Your task to perform on an android device: turn on priority inbox in the gmail app Image 0: 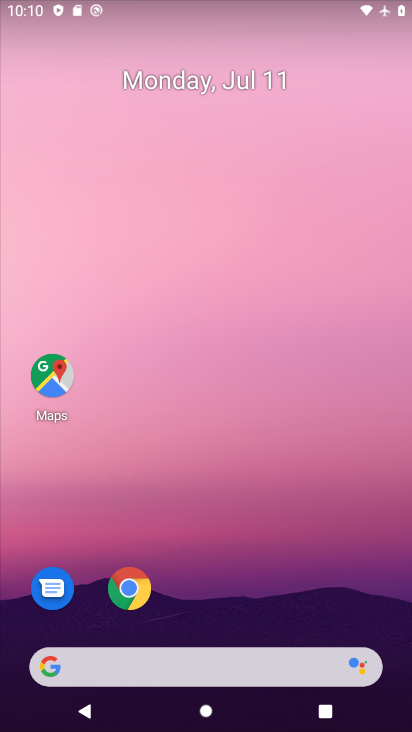
Step 0: drag from (153, 659) to (301, 171)
Your task to perform on an android device: turn on priority inbox in the gmail app Image 1: 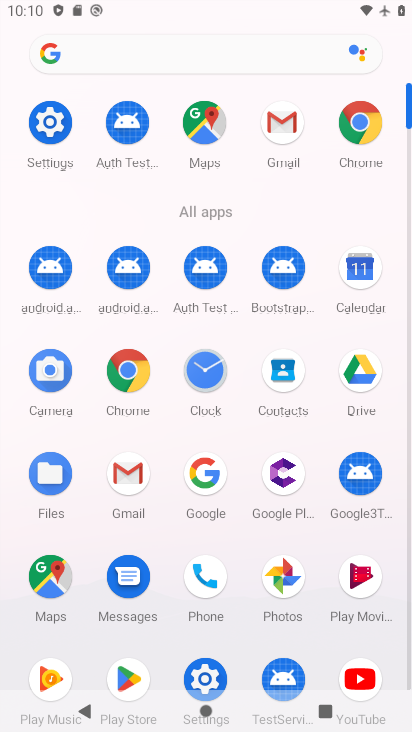
Step 1: click (285, 135)
Your task to perform on an android device: turn on priority inbox in the gmail app Image 2: 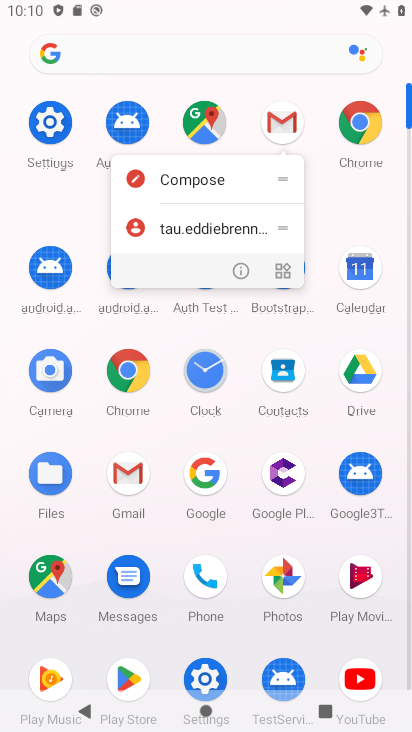
Step 2: click (284, 123)
Your task to perform on an android device: turn on priority inbox in the gmail app Image 3: 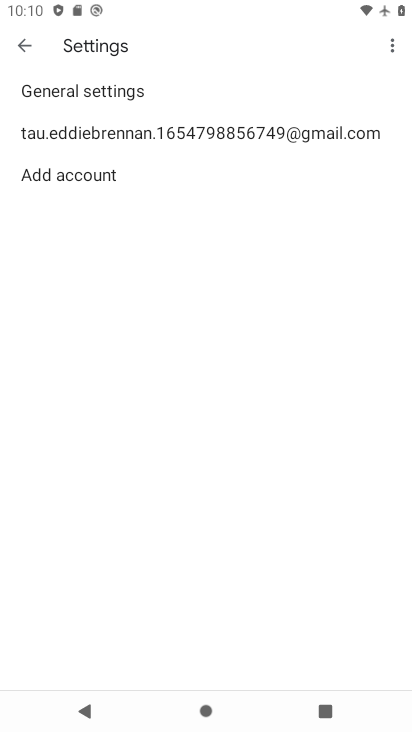
Step 3: click (283, 129)
Your task to perform on an android device: turn on priority inbox in the gmail app Image 4: 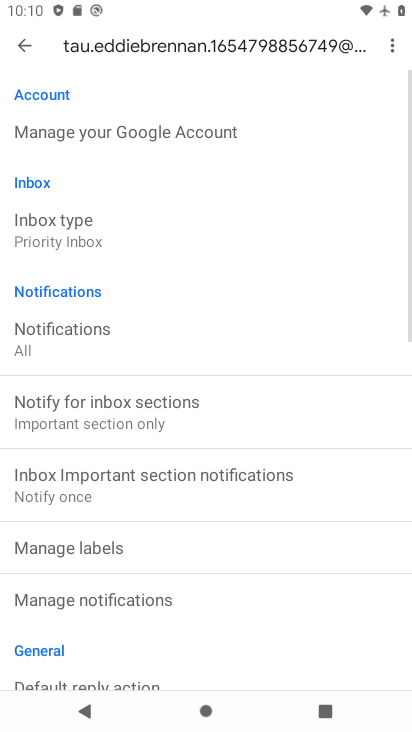
Step 4: click (77, 230)
Your task to perform on an android device: turn on priority inbox in the gmail app Image 5: 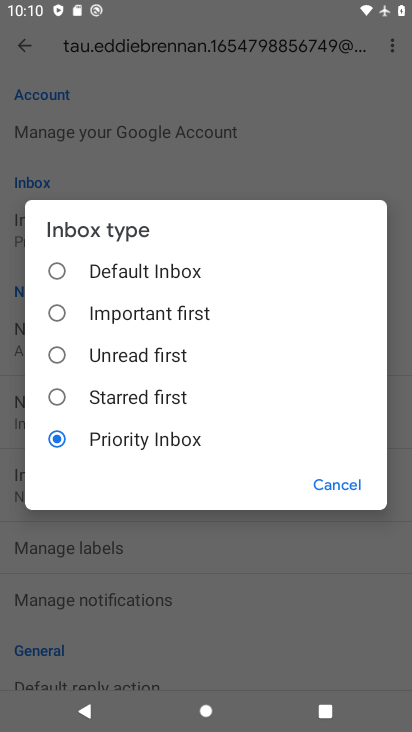
Step 5: task complete